Your task to perform on an android device: turn off airplane mode Image 0: 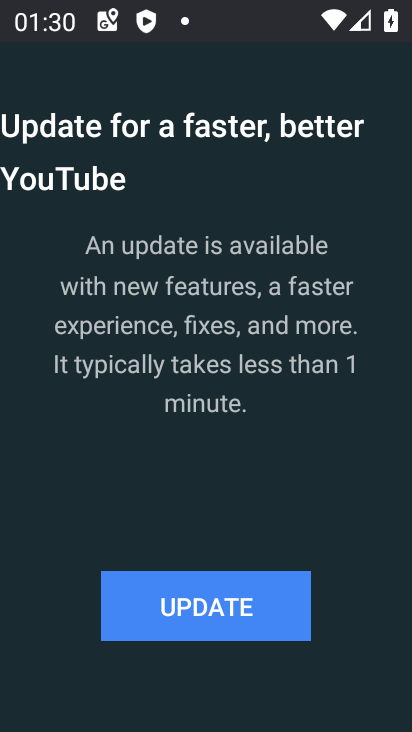
Step 0: press home button
Your task to perform on an android device: turn off airplane mode Image 1: 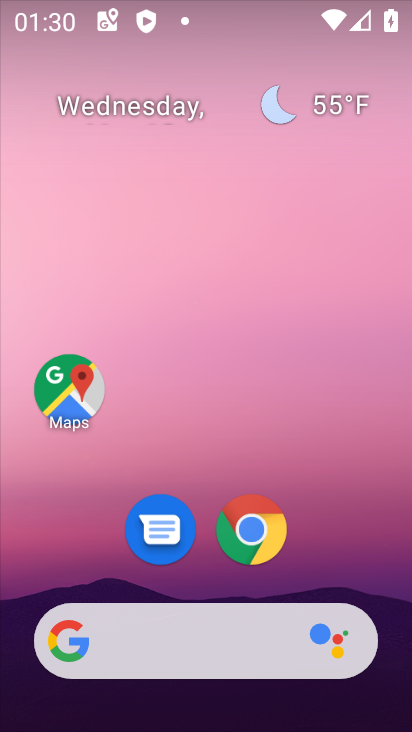
Step 1: drag from (210, 724) to (205, 273)
Your task to perform on an android device: turn off airplane mode Image 2: 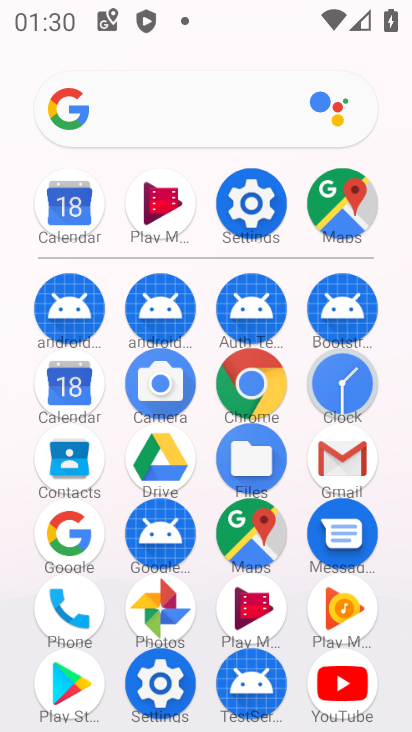
Step 2: click (259, 204)
Your task to perform on an android device: turn off airplane mode Image 3: 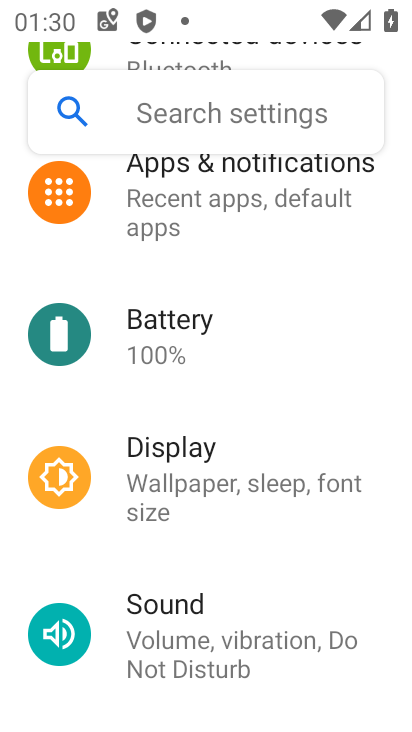
Step 3: drag from (268, 187) to (260, 627)
Your task to perform on an android device: turn off airplane mode Image 4: 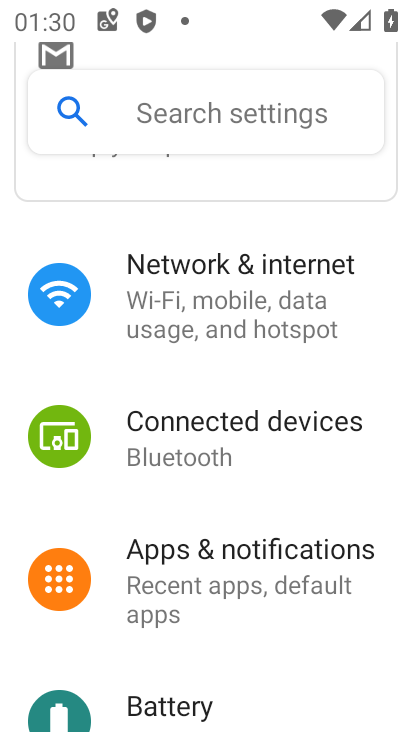
Step 4: drag from (263, 215) to (248, 545)
Your task to perform on an android device: turn off airplane mode Image 5: 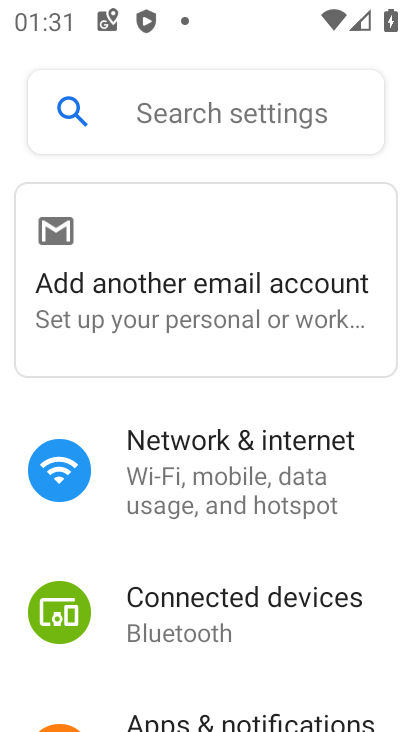
Step 5: click (210, 479)
Your task to perform on an android device: turn off airplane mode Image 6: 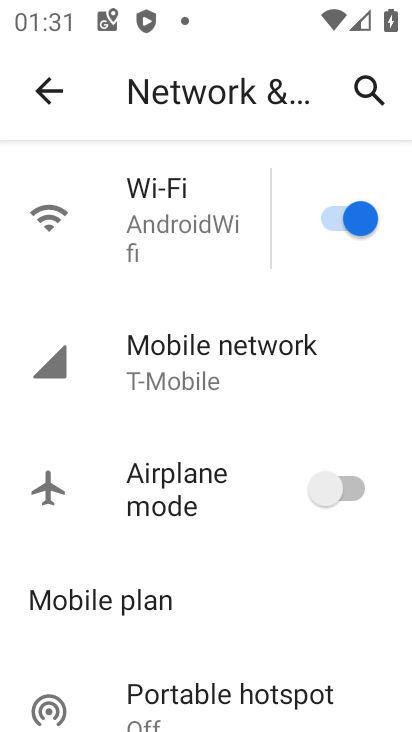
Step 6: task complete